Your task to perform on an android device: toggle sleep mode Image 0: 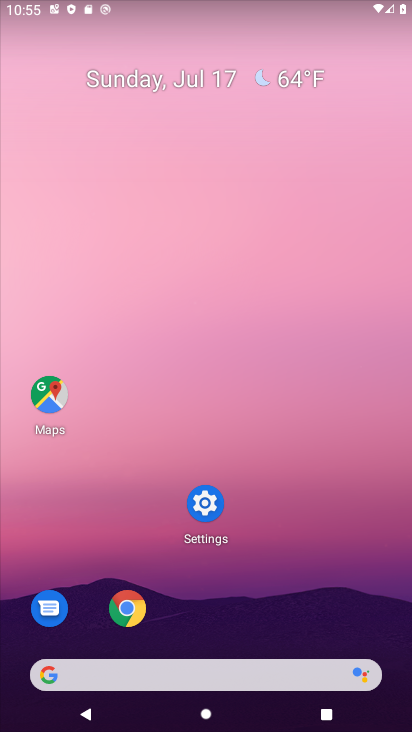
Step 0: click (203, 495)
Your task to perform on an android device: toggle sleep mode Image 1: 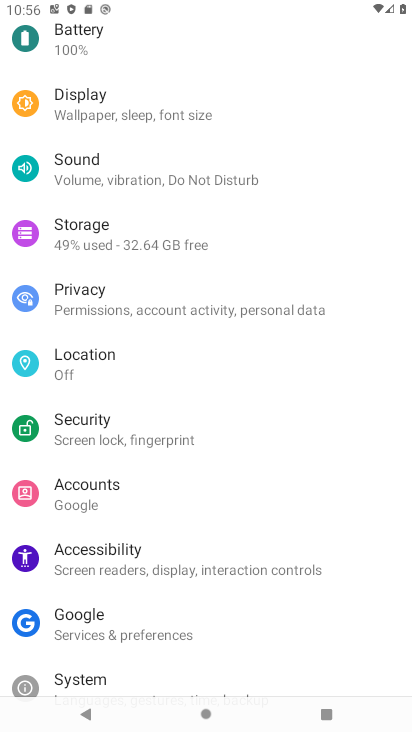
Step 1: click (100, 108)
Your task to perform on an android device: toggle sleep mode Image 2: 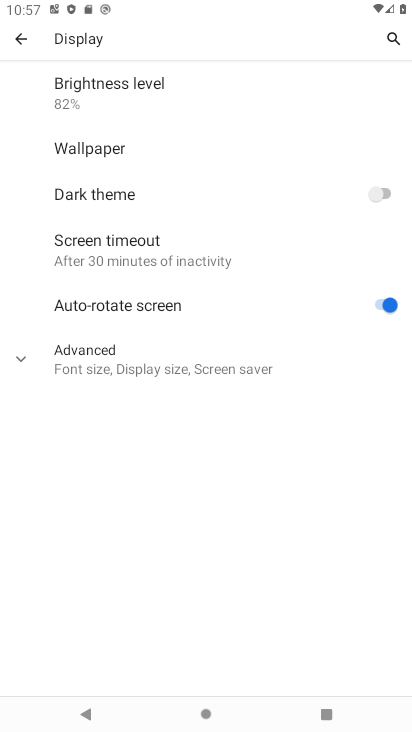
Step 2: click (118, 243)
Your task to perform on an android device: toggle sleep mode Image 3: 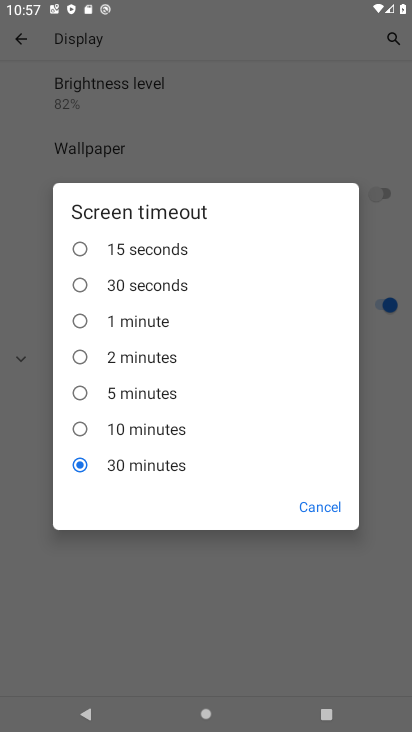
Step 3: click (101, 393)
Your task to perform on an android device: toggle sleep mode Image 4: 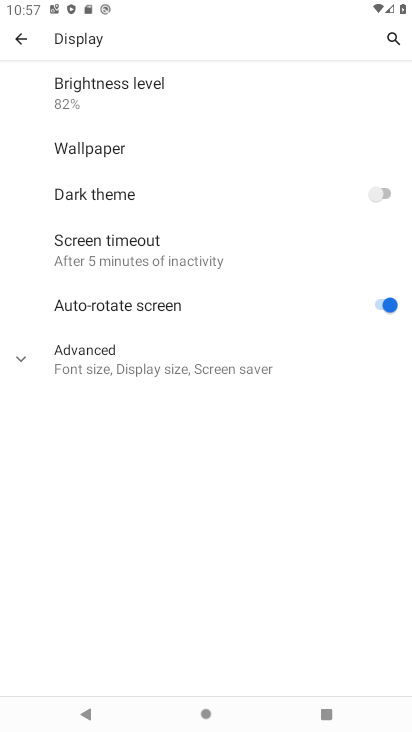
Step 4: task complete